Your task to perform on an android device: Search for sushi restaurants on Maps Image 0: 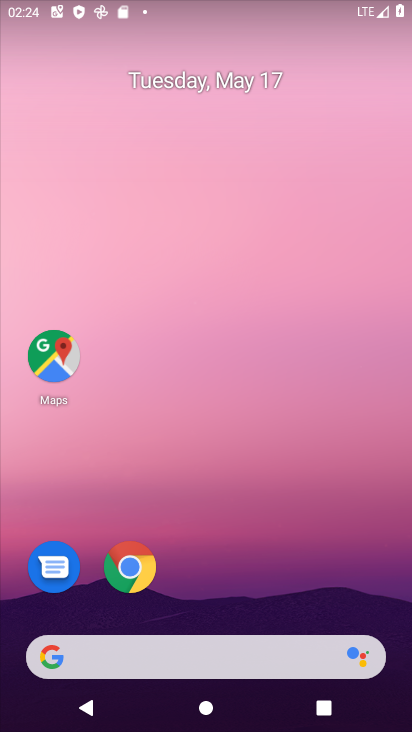
Step 0: click (55, 359)
Your task to perform on an android device: Search for sushi restaurants on Maps Image 1: 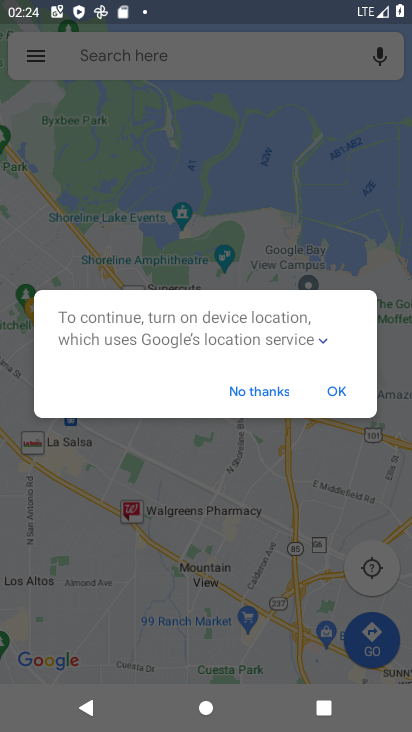
Step 1: click (343, 390)
Your task to perform on an android device: Search for sushi restaurants on Maps Image 2: 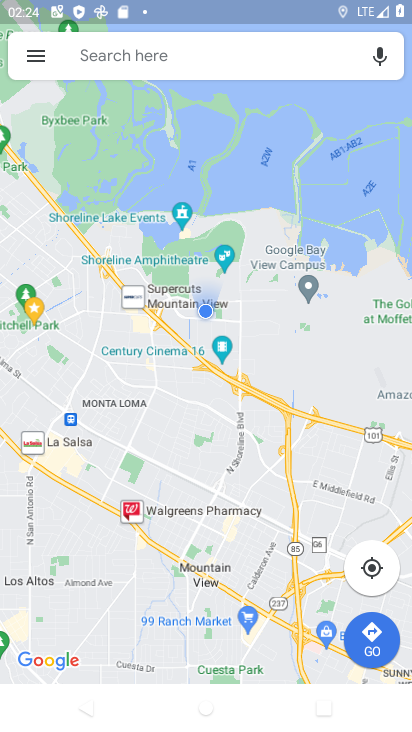
Step 2: click (115, 52)
Your task to perform on an android device: Search for sushi restaurants on Maps Image 3: 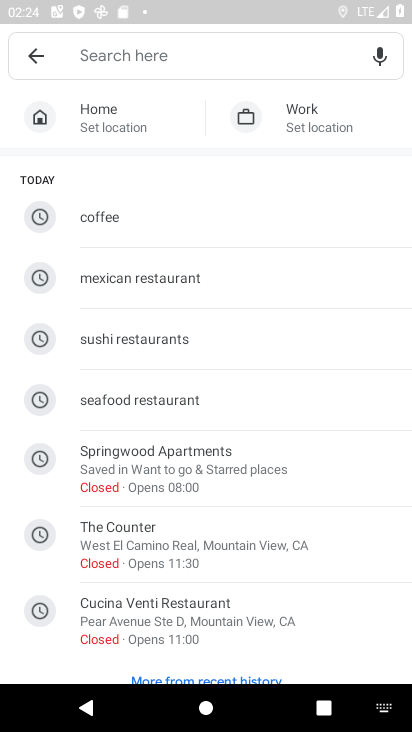
Step 3: type "sushi restaurants"
Your task to perform on an android device: Search for sushi restaurants on Maps Image 4: 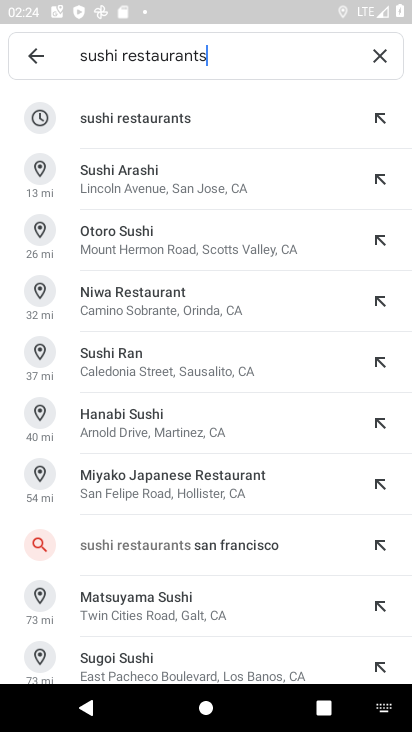
Step 4: click (160, 112)
Your task to perform on an android device: Search for sushi restaurants on Maps Image 5: 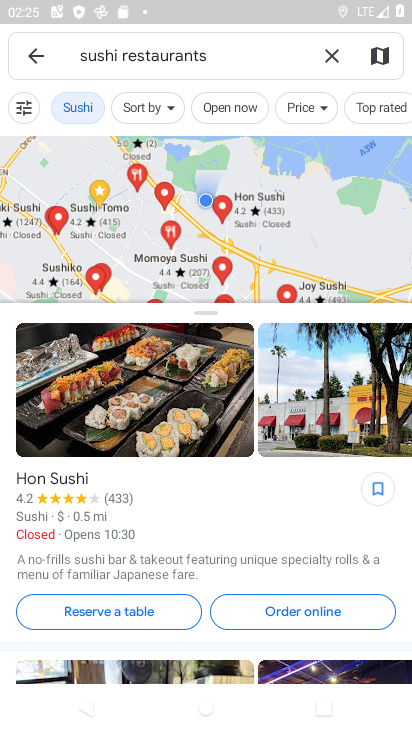
Step 5: task complete